Your task to perform on an android device: install app "Fetch Rewards" Image 0: 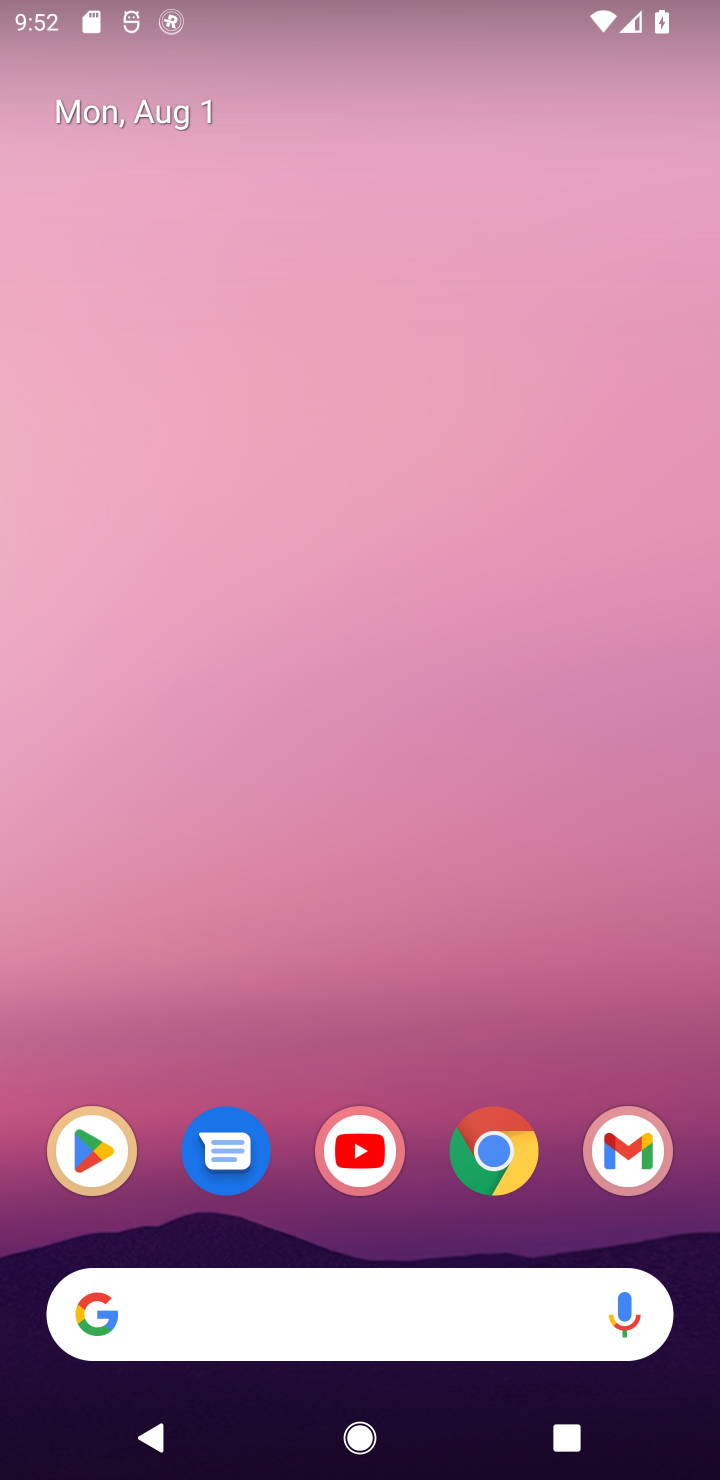
Step 0: click (106, 1132)
Your task to perform on an android device: install app "Fetch Rewards" Image 1: 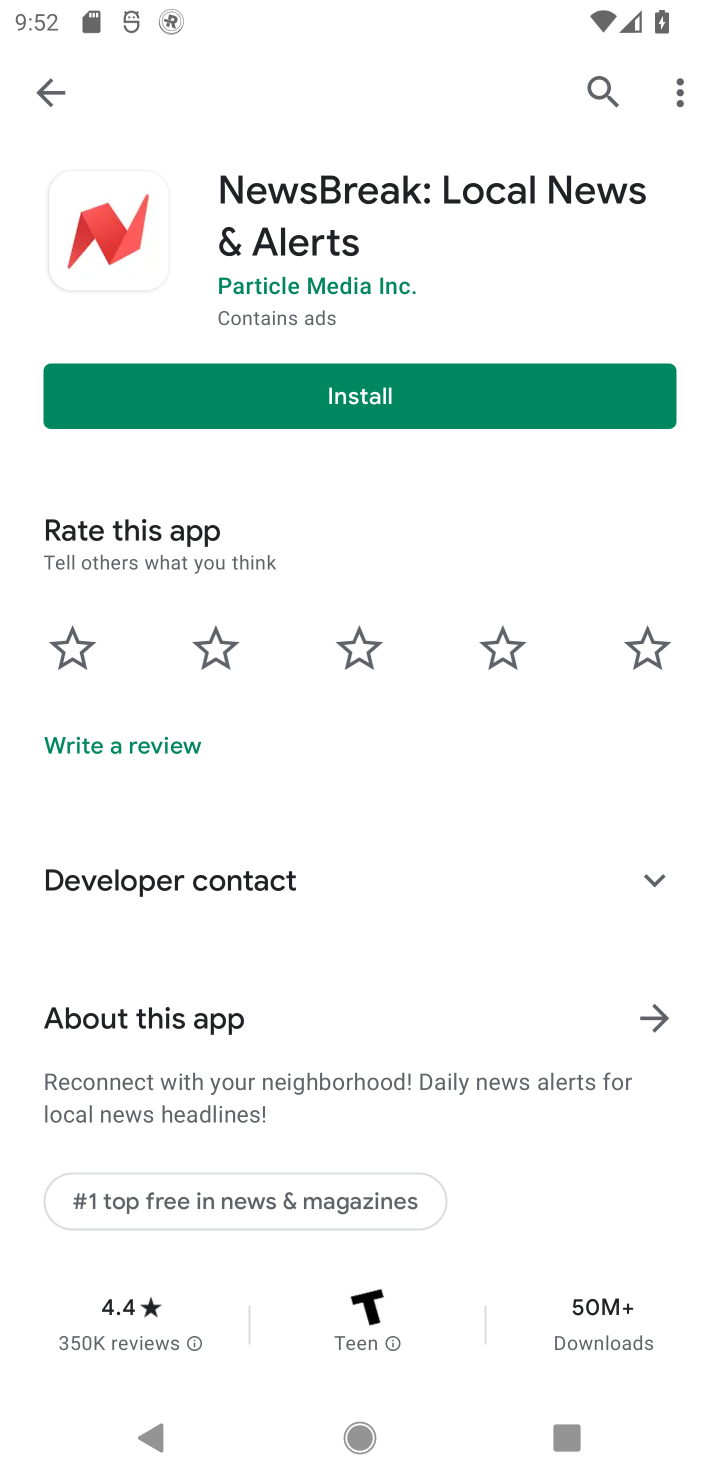
Step 1: click (595, 94)
Your task to perform on an android device: install app "Fetch Rewards" Image 2: 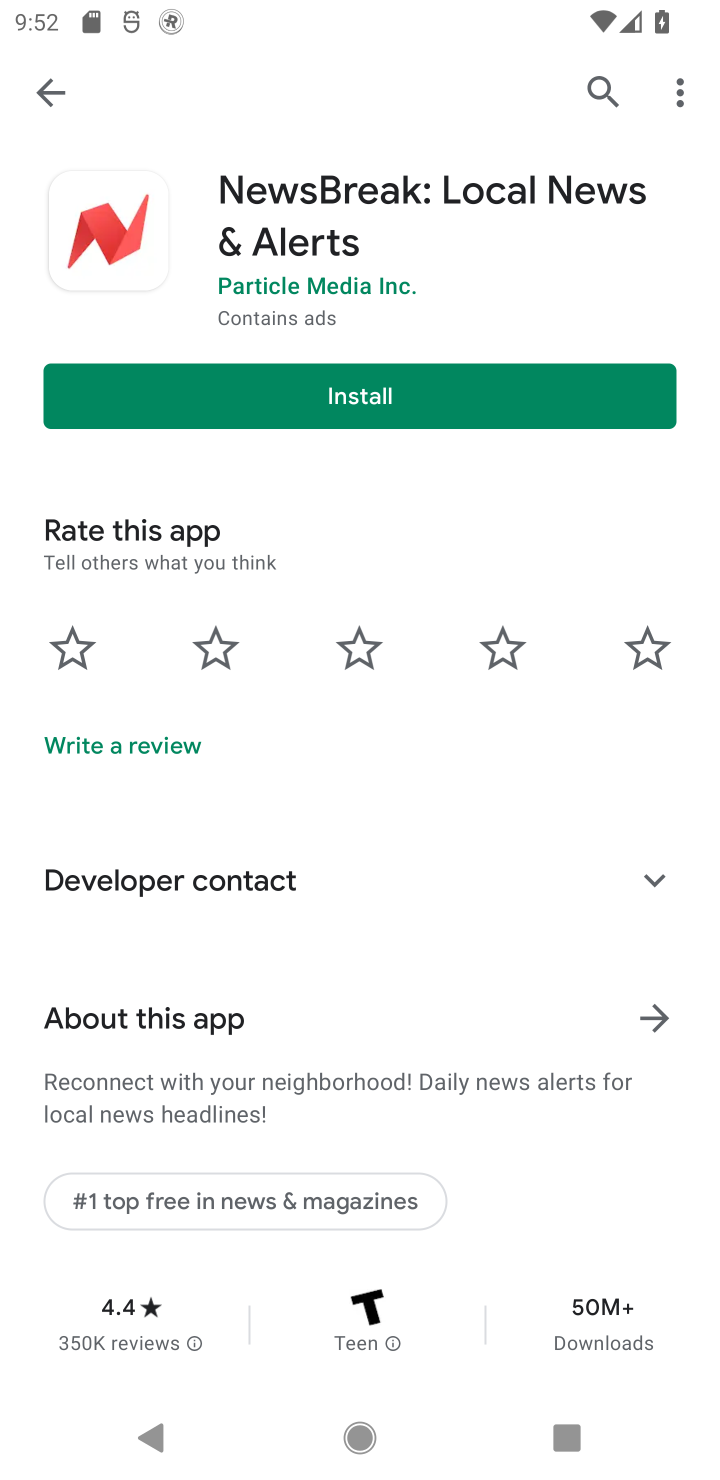
Step 2: click (589, 98)
Your task to perform on an android device: install app "Fetch Rewards" Image 3: 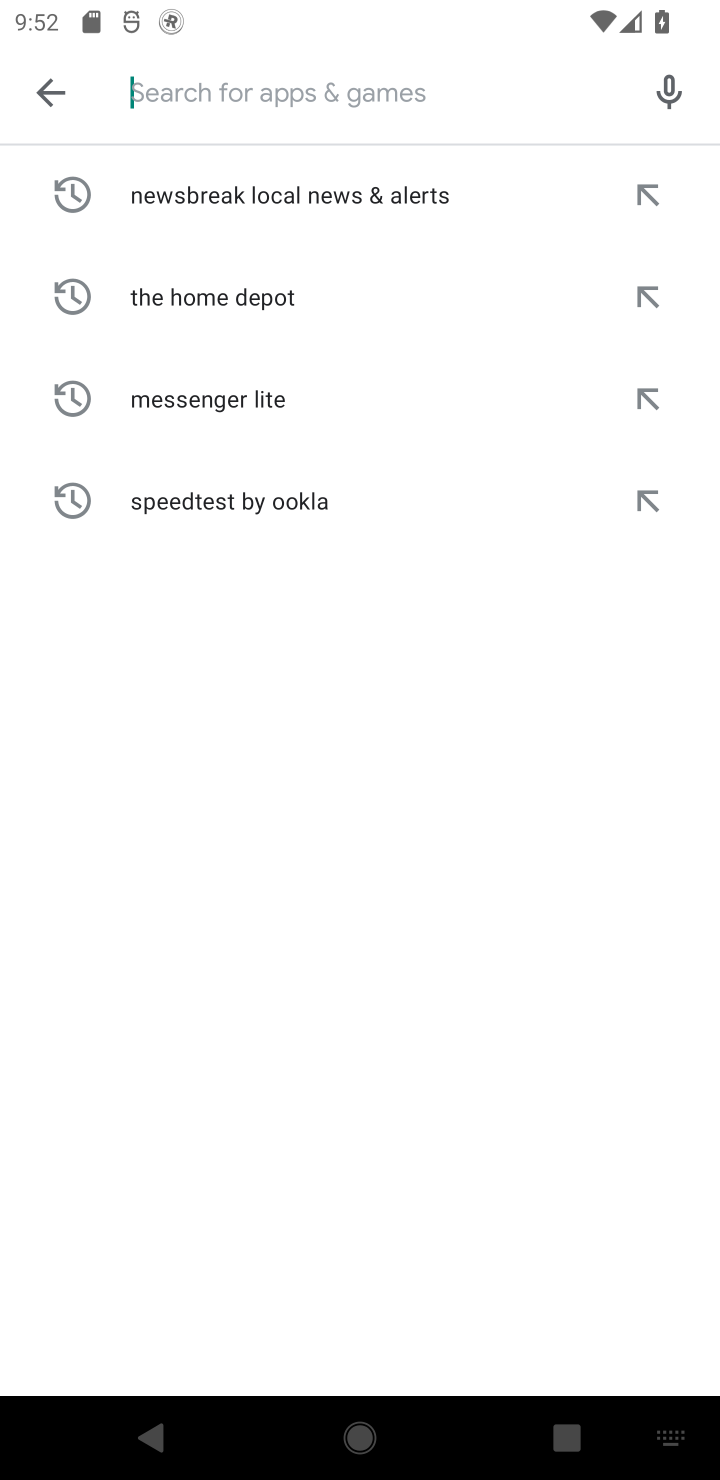
Step 3: type "Fetch Rewards"
Your task to perform on an android device: install app "Fetch Rewards" Image 4: 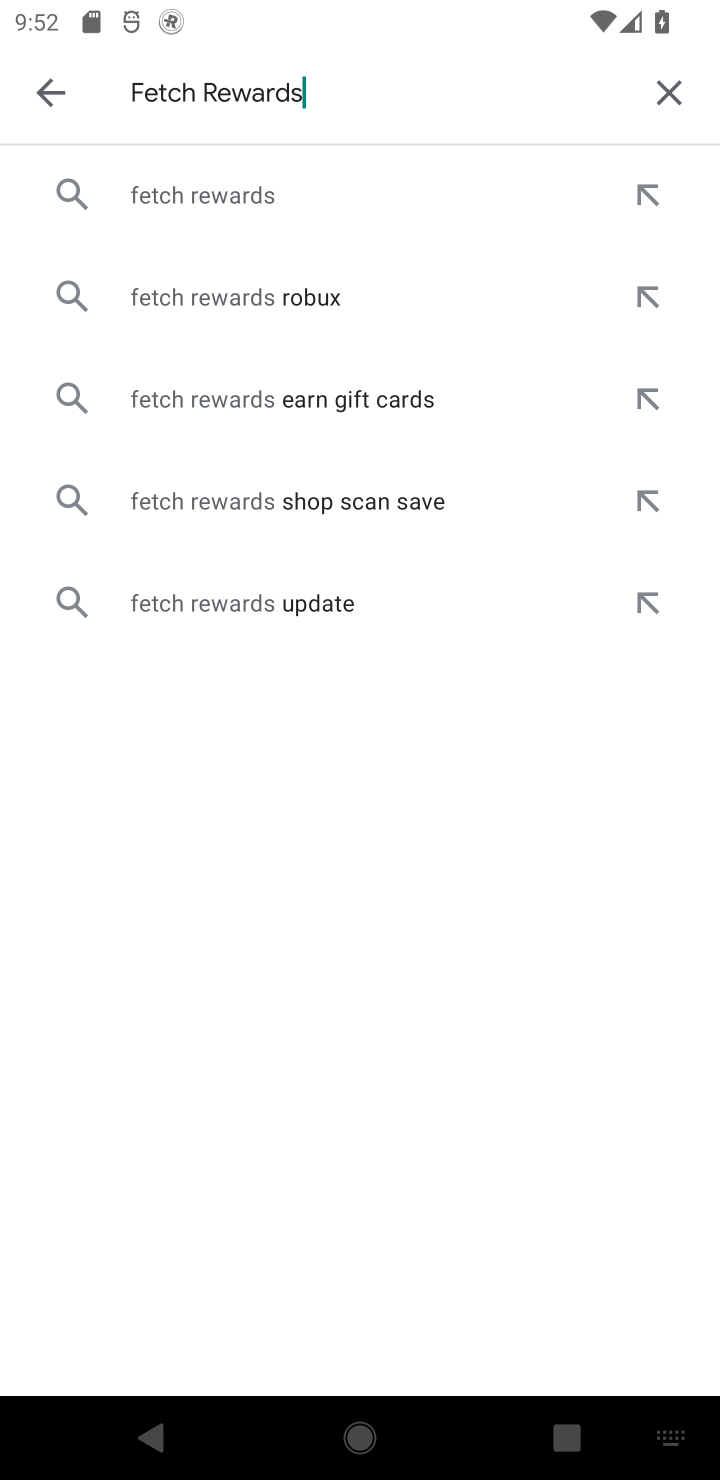
Step 4: click (379, 199)
Your task to perform on an android device: install app "Fetch Rewards" Image 5: 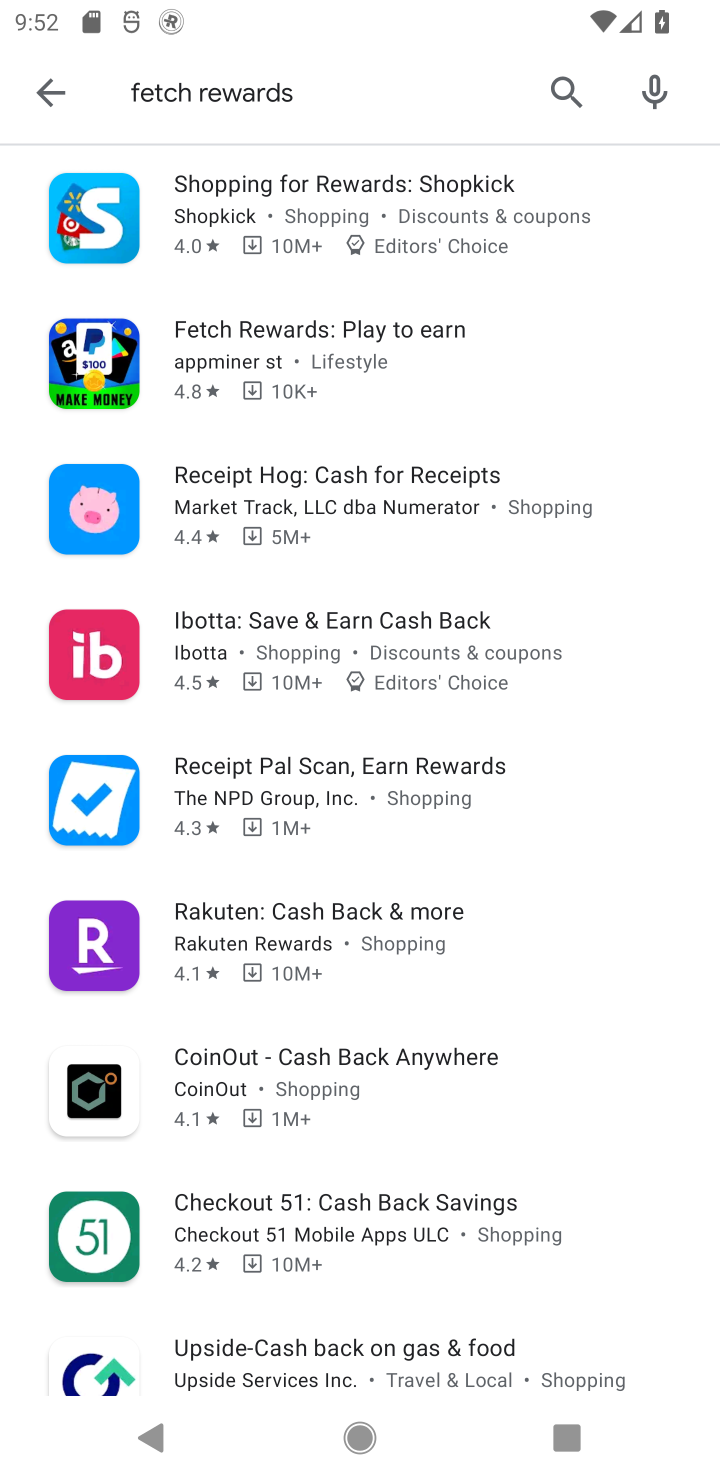
Step 5: click (431, 361)
Your task to perform on an android device: install app "Fetch Rewards" Image 6: 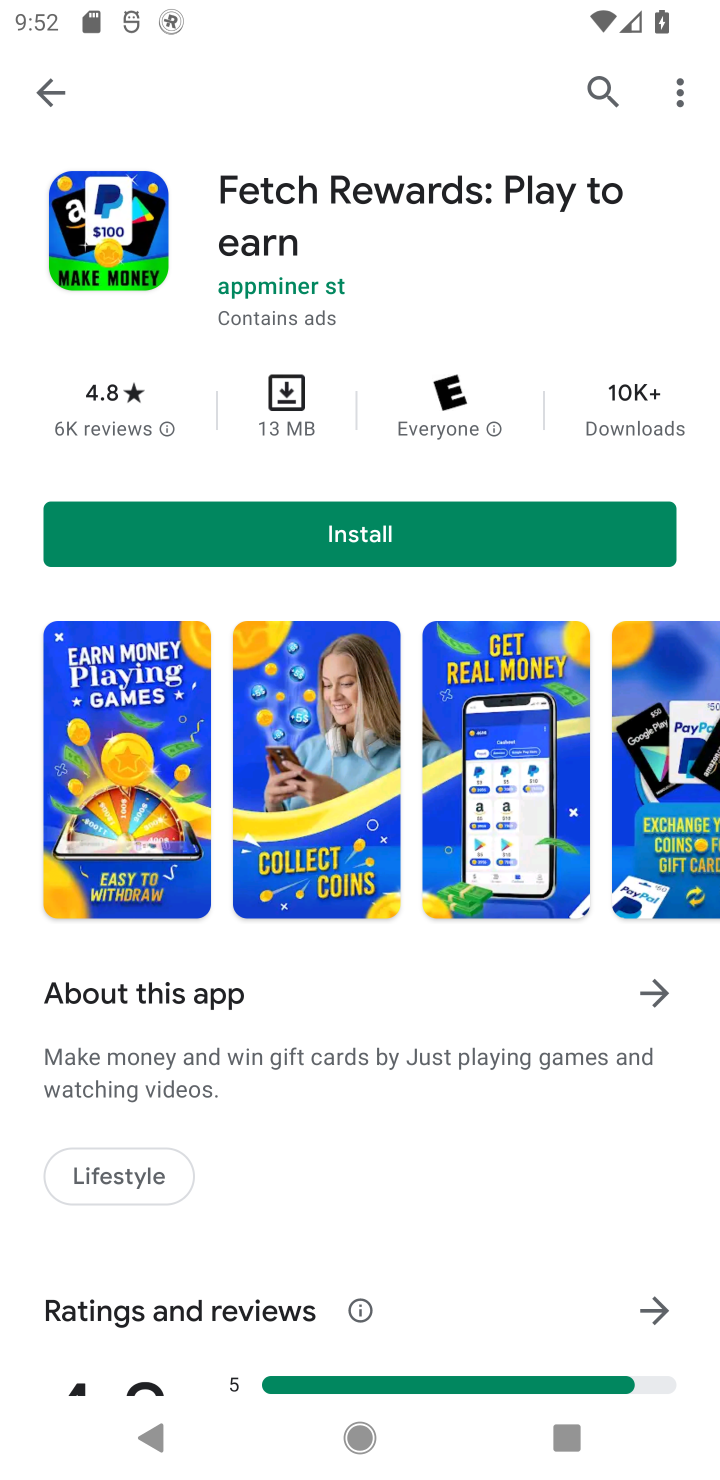
Step 6: click (427, 533)
Your task to perform on an android device: install app "Fetch Rewards" Image 7: 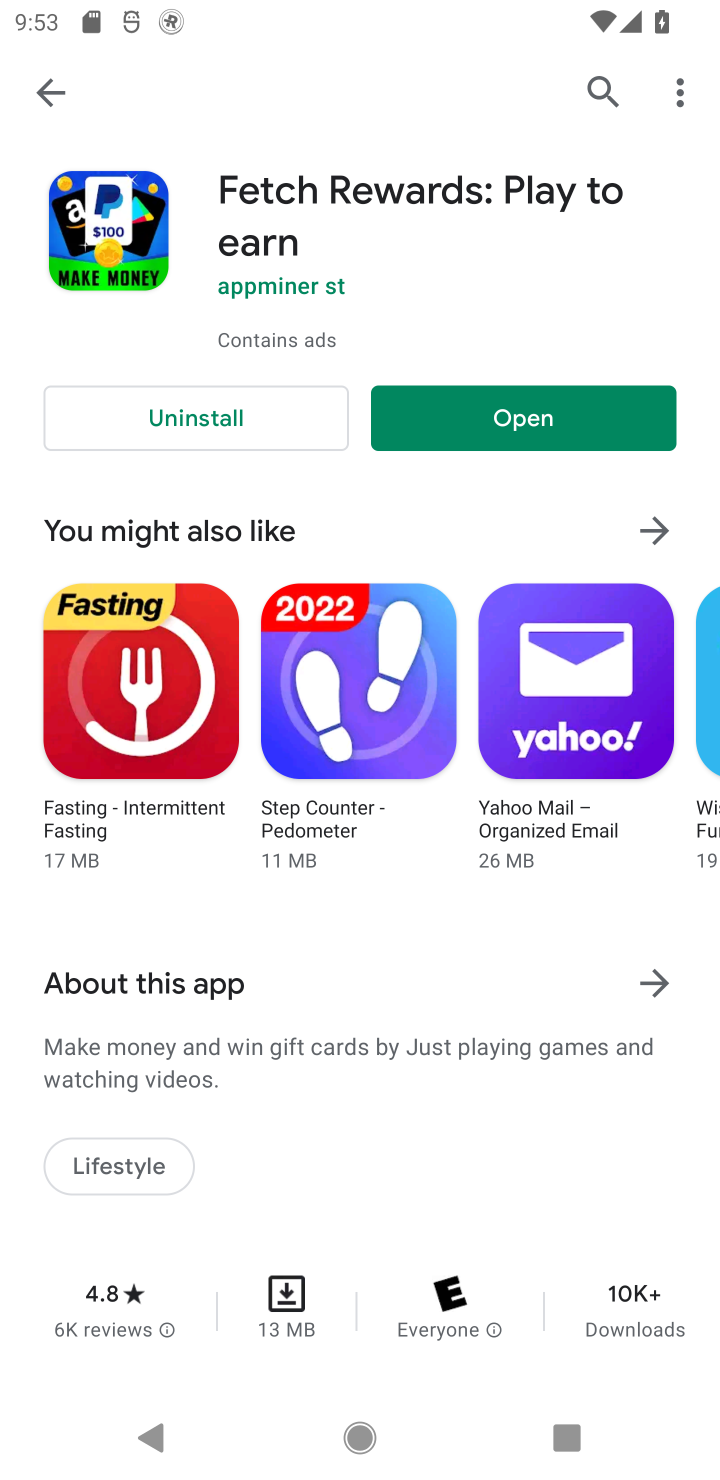
Step 7: task complete